Your task to perform on an android device: clear history in the chrome app Image 0: 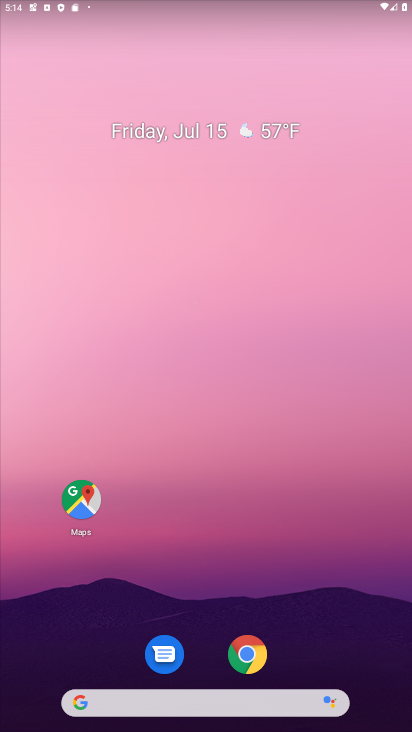
Step 0: click (248, 648)
Your task to perform on an android device: clear history in the chrome app Image 1: 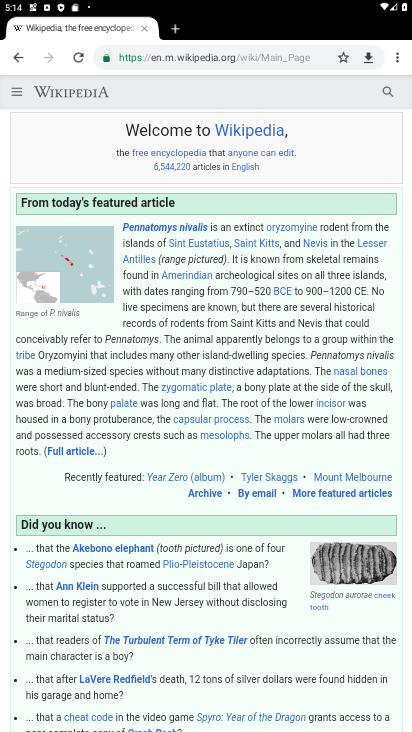
Step 1: click (393, 57)
Your task to perform on an android device: clear history in the chrome app Image 2: 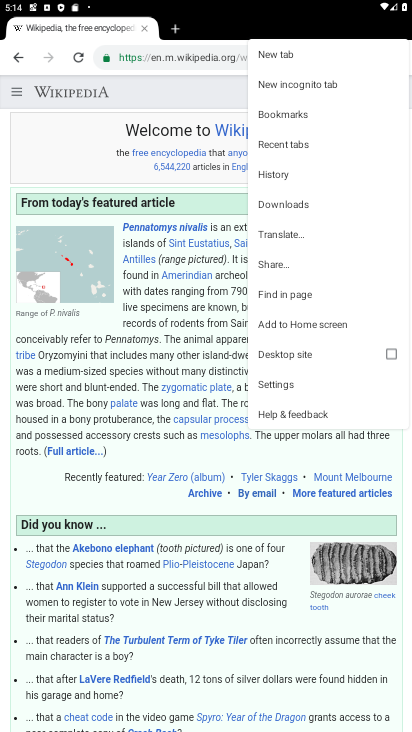
Step 2: click (265, 180)
Your task to perform on an android device: clear history in the chrome app Image 3: 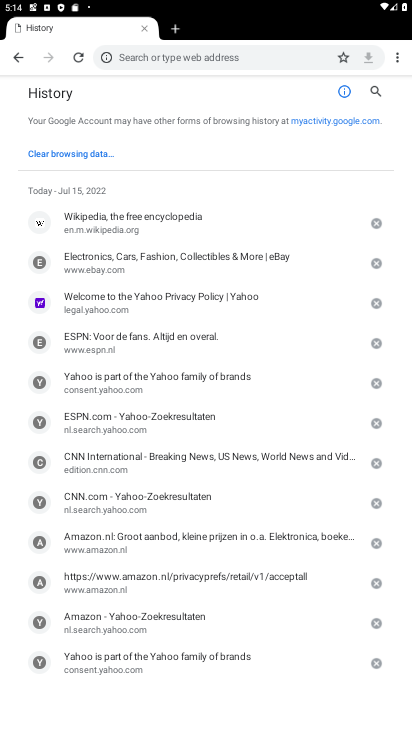
Step 3: click (100, 163)
Your task to perform on an android device: clear history in the chrome app Image 4: 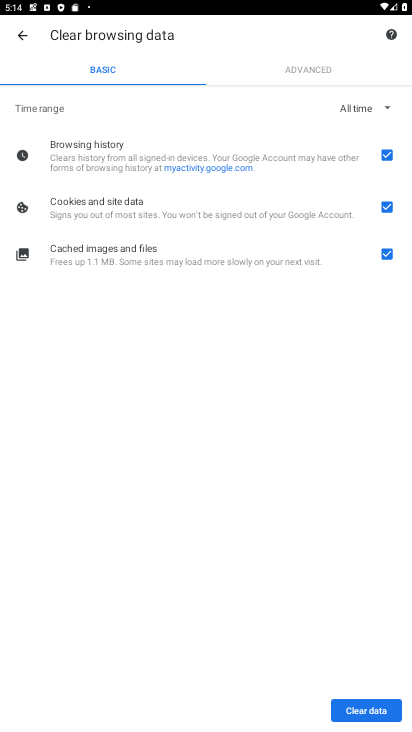
Step 4: click (382, 712)
Your task to perform on an android device: clear history in the chrome app Image 5: 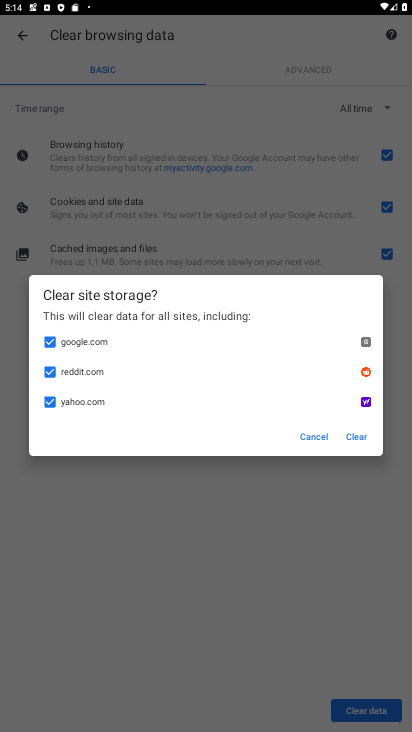
Step 5: click (354, 440)
Your task to perform on an android device: clear history in the chrome app Image 6: 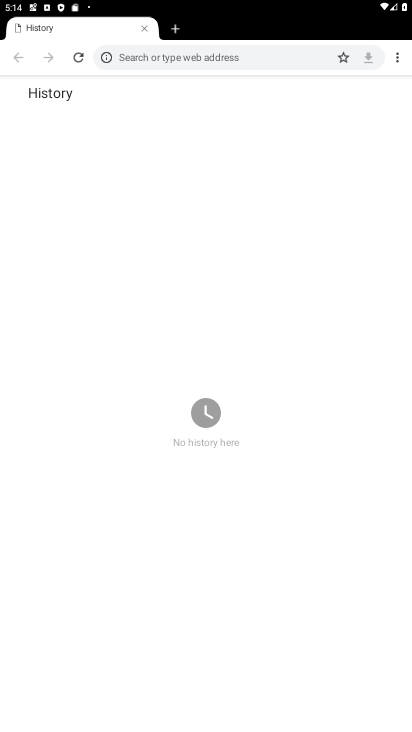
Step 6: task complete